Your task to perform on an android device: What is the recent news? Image 0: 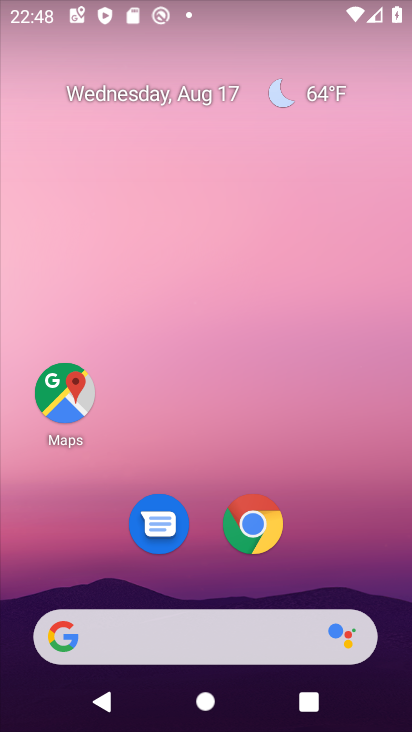
Step 0: click (210, 637)
Your task to perform on an android device: What is the recent news? Image 1: 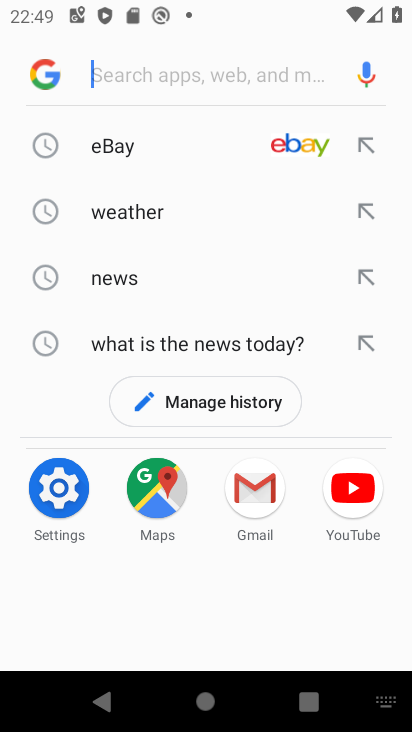
Step 1: click (124, 278)
Your task to perform on an android device: What is the recent news? Image 2: 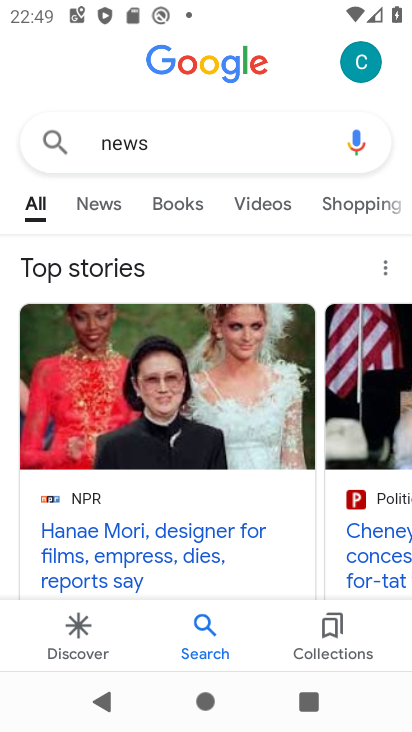
Step 2: click (108, 202)
Your task to perform on an android device: What is the recent news? Image 3: 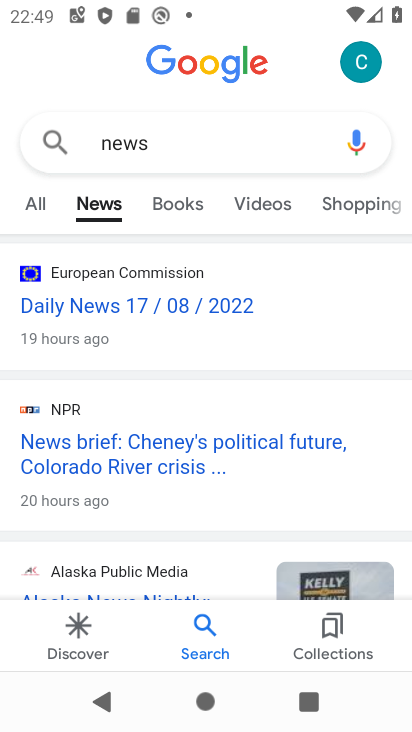
Step 3: click (30, 195)
Your task to perform on an android device: What is the recent news? Image 4: 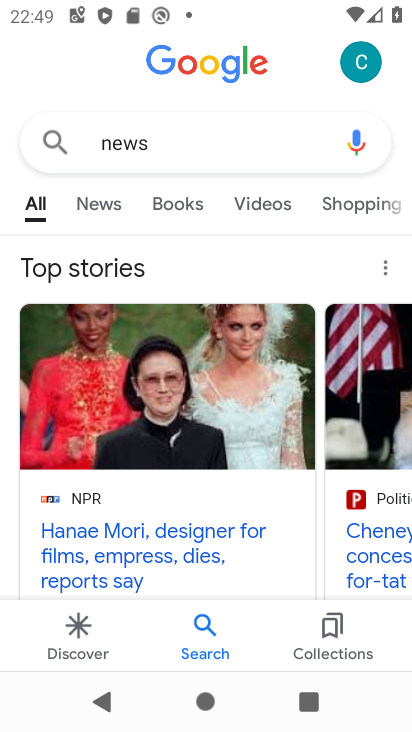
Step 4: task complete